Your task to perform on an android device: create a new album in the google photos Image 0: 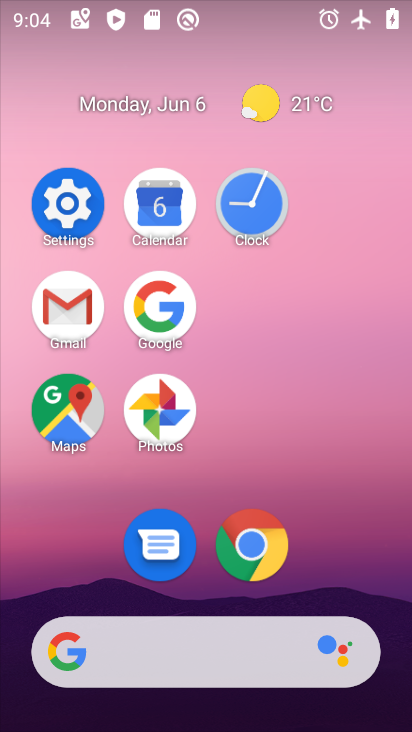
Step 0: click (146, 398)
Your task to perform on an android device: create a new album in the google photos Image 1: 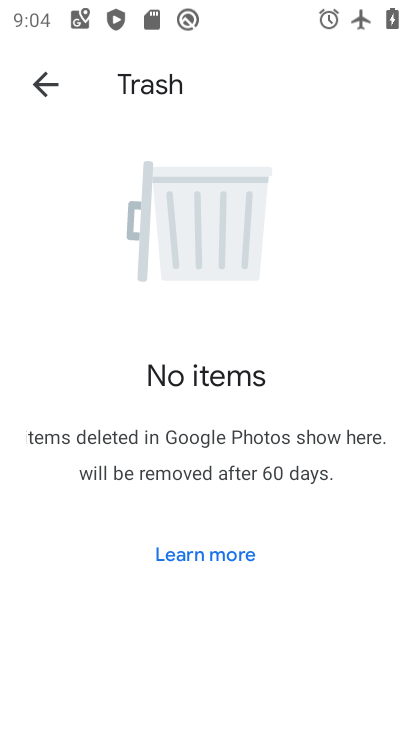
Step 1: click (54, 97)
Your task to perform on an android device: create a new album in the google photos Image 2: 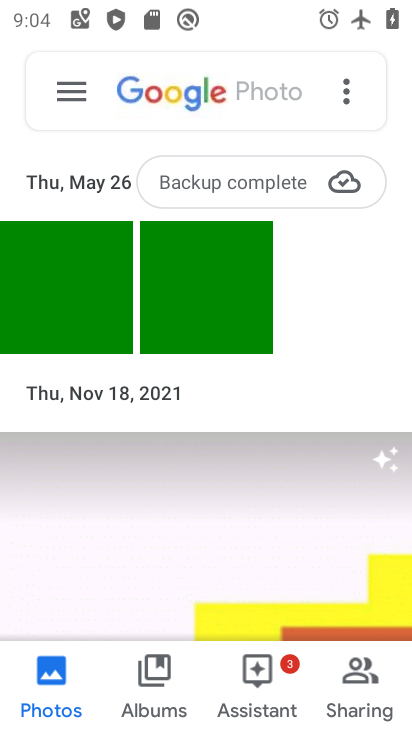
Step 2: click (186, 673)
Your task to perform on an android device: create a new album in the google photos Image 3: 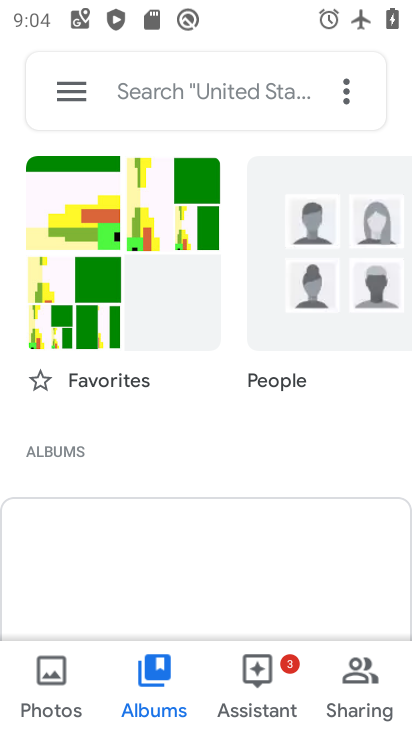
Step 3: drag from (195, 575) to (166, 217)
Your task to perform on an android device: create a new album in the google photos Image 4: 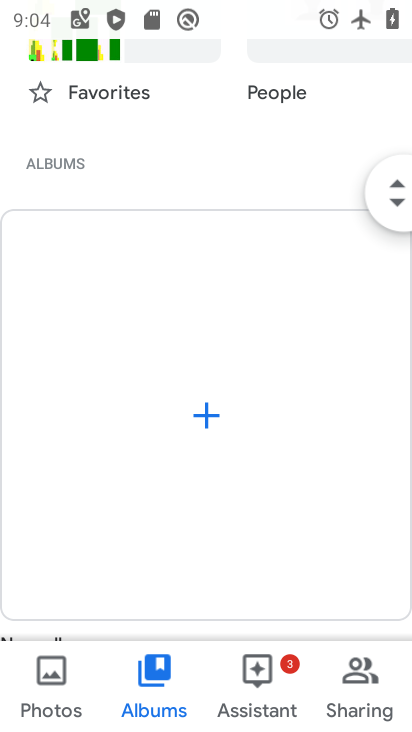
Step 4: click (203, 406)
Your task to perform on an android device: create a new album in the google photos Image 5: 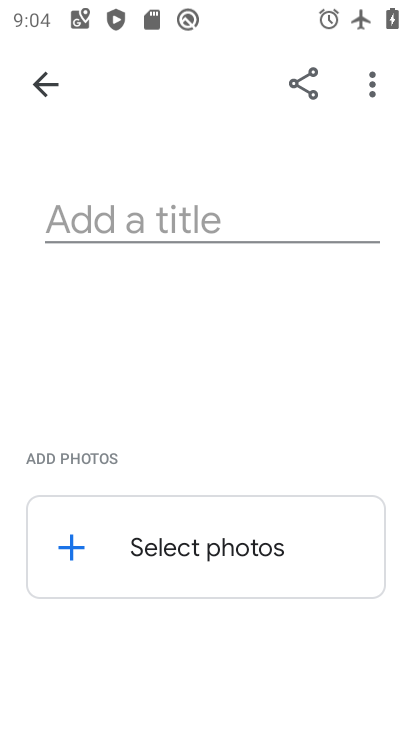
Step 5: click (107, 211)
Your task to perform on an android device: create a new album in the google photos Image 6: 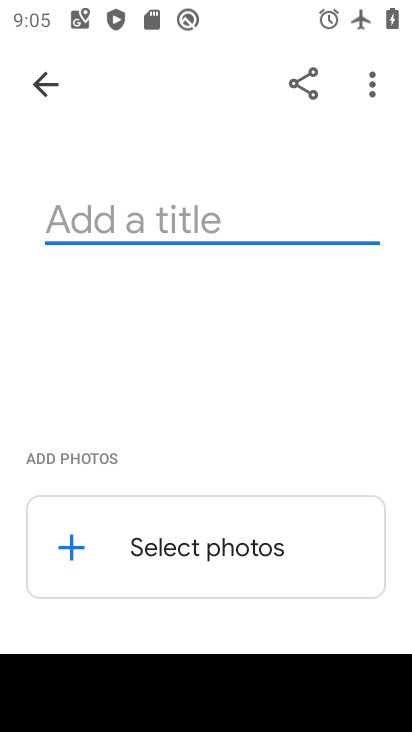
Step 6: type "iiuu"
Your task to perform on an android device: create a new album in the google photos Image 7: 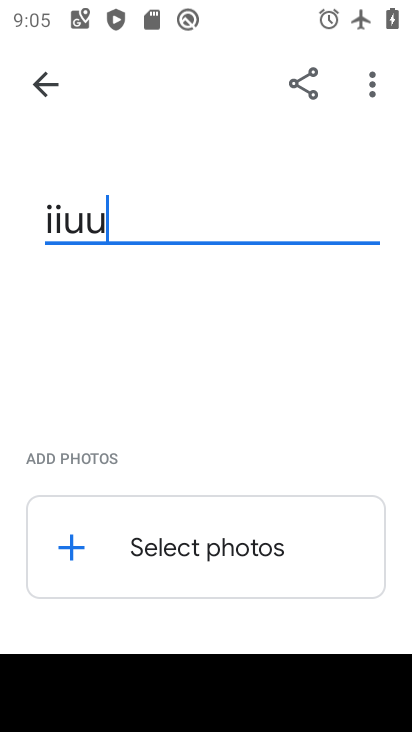
Step 7: click (222, 511)
Your task to perform on an android device: create a new album in the google photos Image 8: 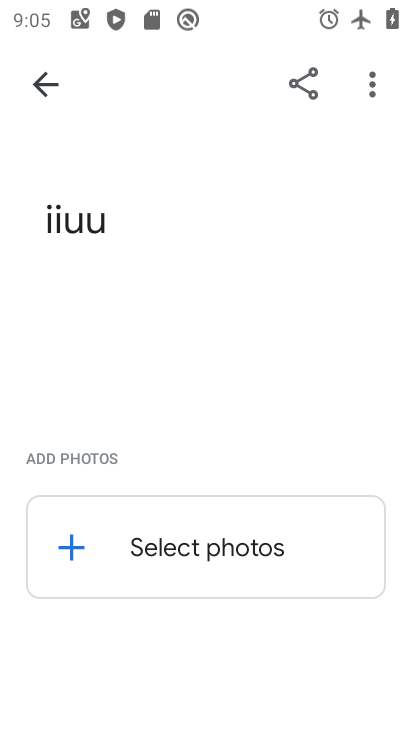
Step 8: click (157, 538)
Your task to perform on an android device: create a new album in the google photos Image 9: 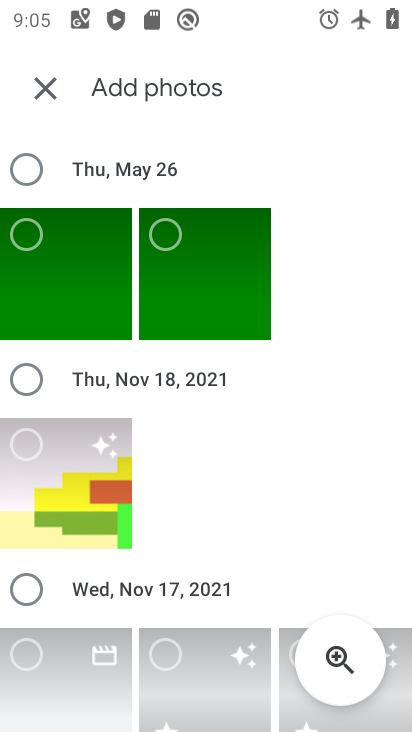
Step 9: click (56, 269)
Your task to perform on an android device: create a new album in the google photos Image 10: 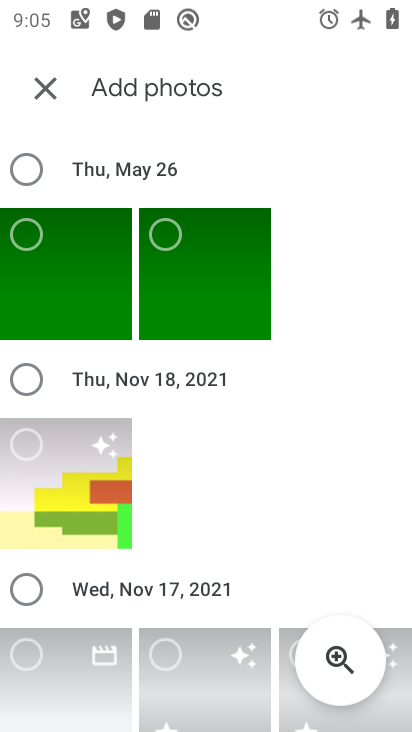
Step 10: click (272, 257)
Your task to perform on an android device: create a new album in the google photos Image 11: 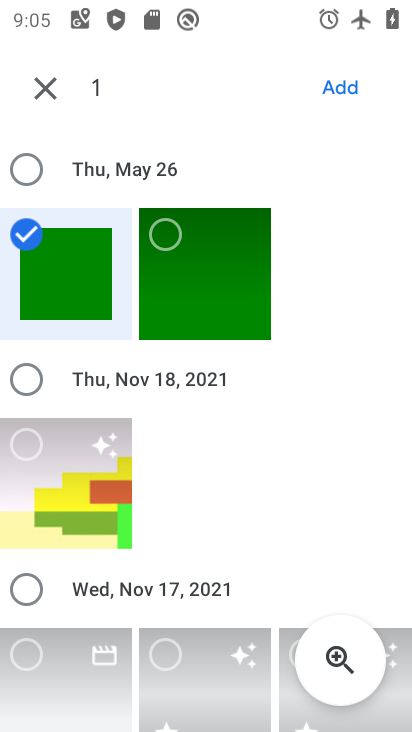
Step 11: click (266, 256)
Your task to perform on an android device: create a new album in the google photos Image 12: 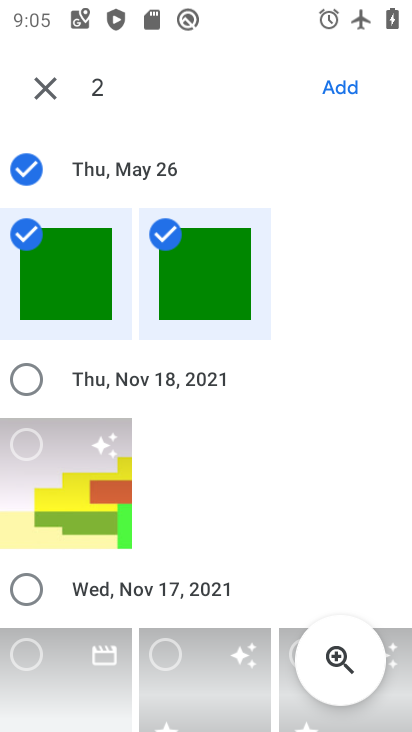
Step 12: click (333, 86)
Your task to perform on an android device: create a new album in the google photos Image 13: 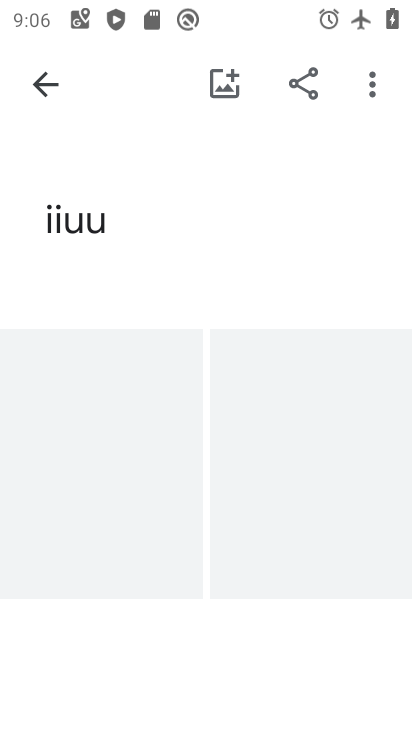
Step 13: task complete